Your task to perform on an android device: turn on wifi Image 0: 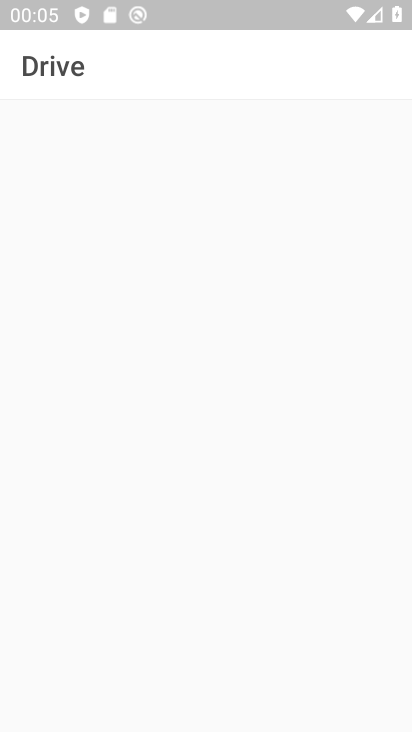
Step 0: press home button
Your task to perform on an android device: turn on wifi Image 1: 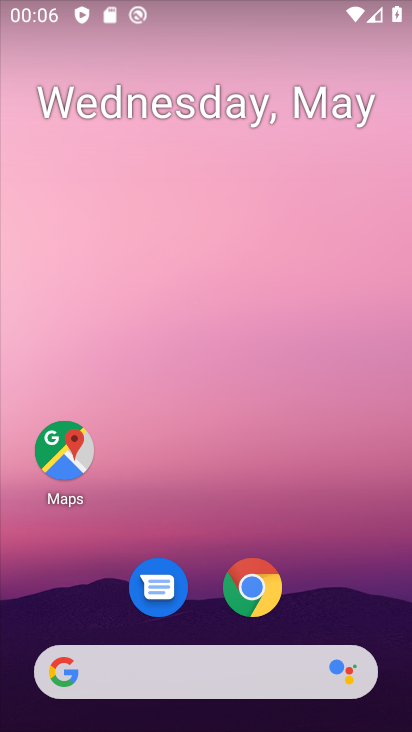
Step 1: drag from (334, 586) to (282, 181)
Your task to perform on an android device: turn on wifi Image 2: 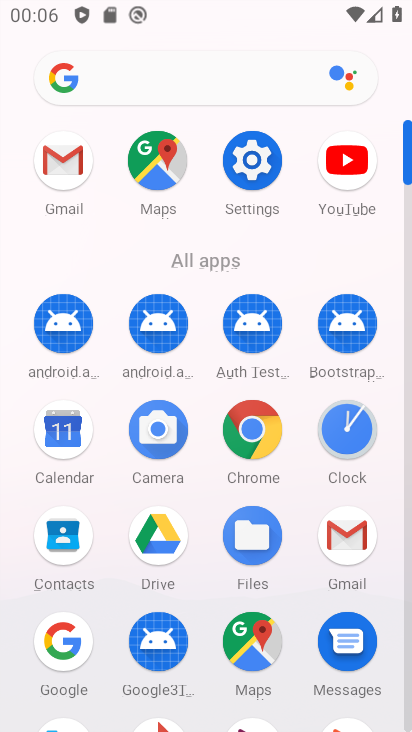
Step 2: click (62, 435)
Your task to perform on an android device: turn on wifi Image 3: 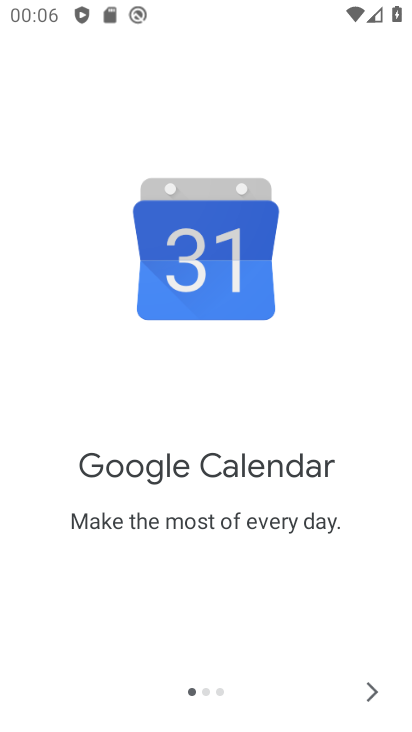
Step 3: click (369, 696)
Your task to perform on an android device: turn on wifi Image 4: 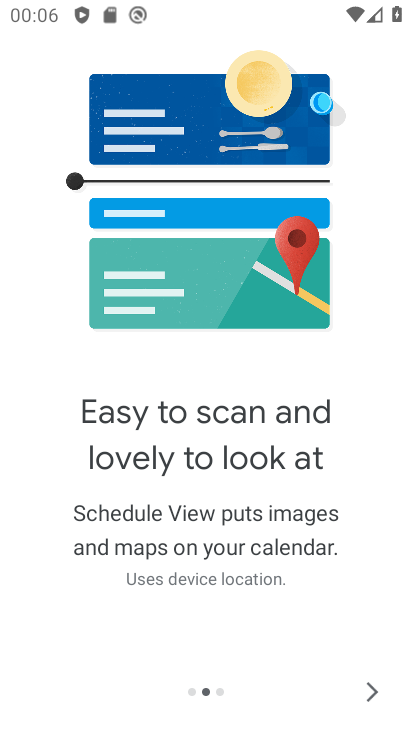
Step 4: click (369, 696)
Your task to perform on an android device: turn on wifi Image 5: 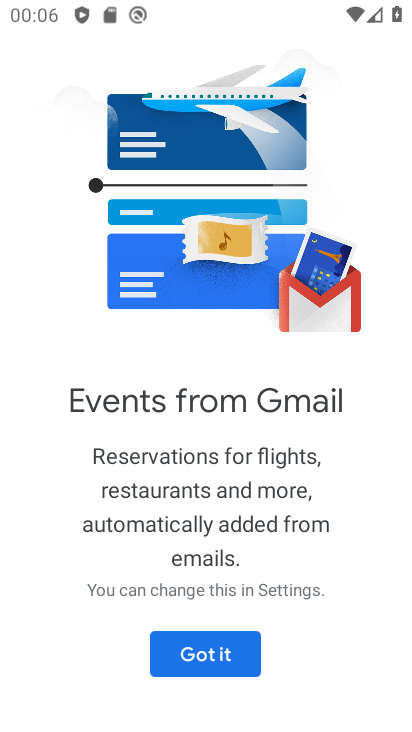
Step 5: click (244, 663)
Your task to perform on an android device: turn on wifi Image 6: 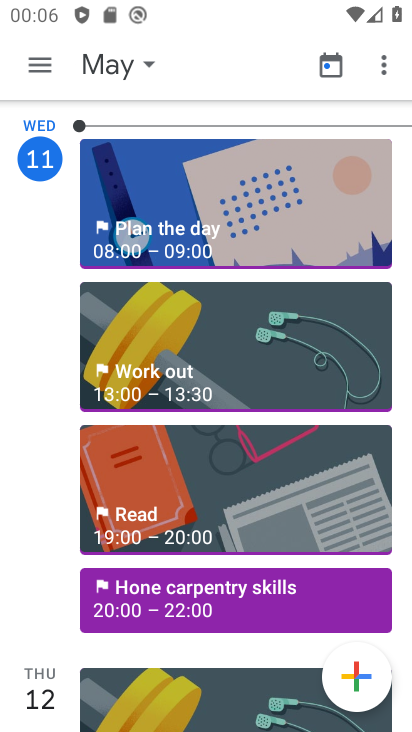
Step 6: task complete